Your task to perform on an android device: open app "Upside-Cash back on gas & food" (install if not already installed) Image 0: 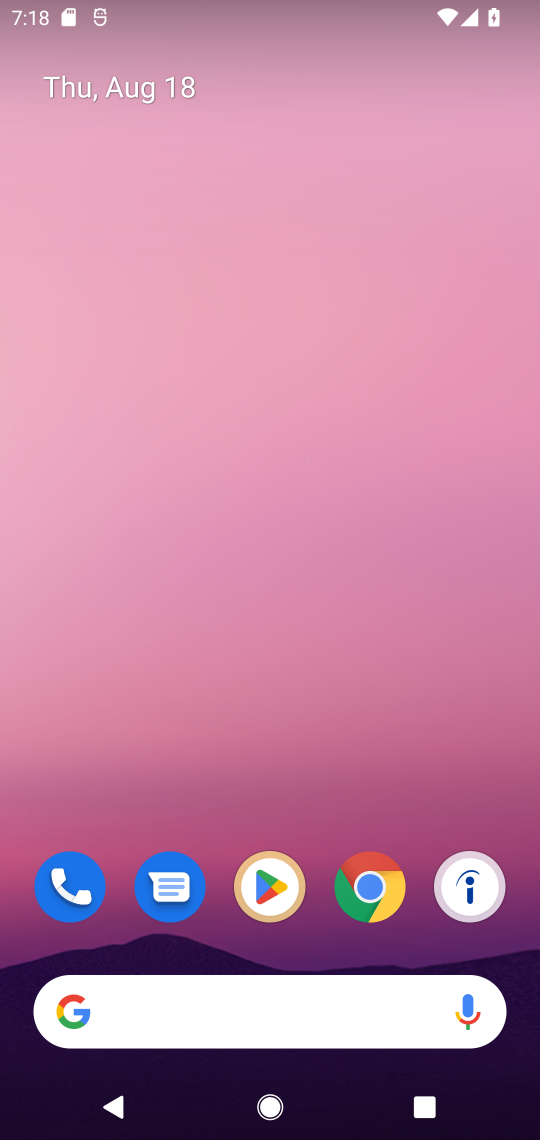
Step 0: click (275, 872)
Your task to perform on an android device: open app "Upside-Cash back on gas & food" (install if not already installed) Image 1: 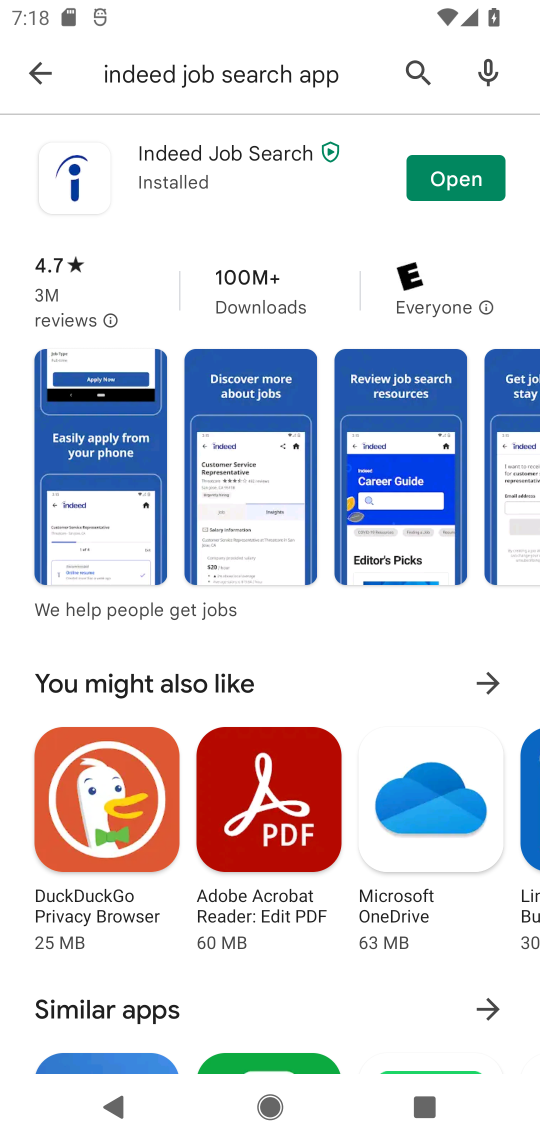
Step 1: click (411, 68)
Your task to perform on an android device: open app "Upside-Cash back on gas & food" (install if not already installed) Image 2: 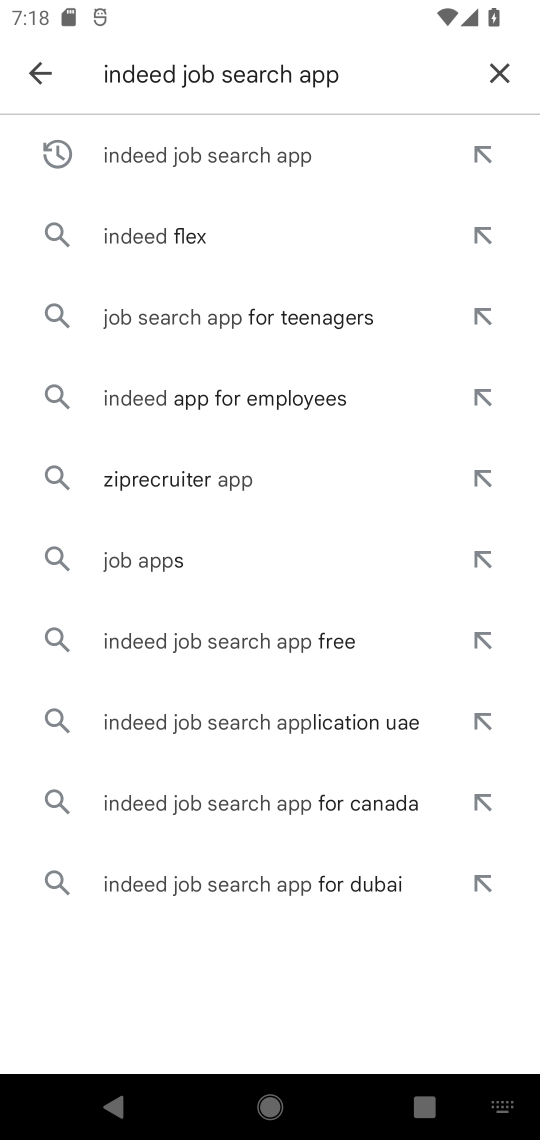
Step 2: click (493, 71)
Your task to perform on an android device: open app "Upside-Cash back on gas & food" (install if not already installed) Image 3: 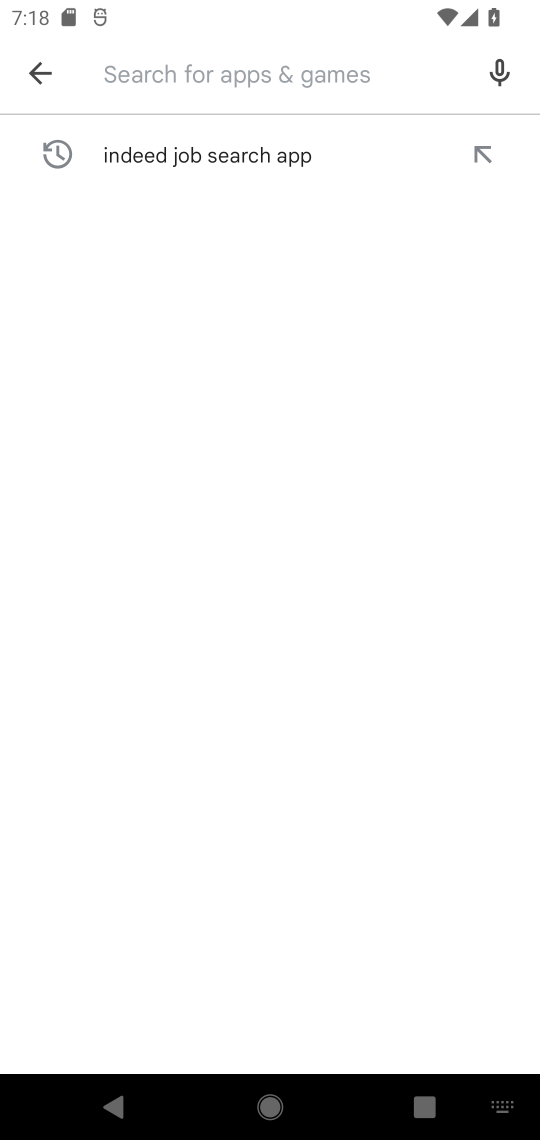
Step 3: type "Upside-Cash back on gas & food"
Your task to perform on an android device: open app "Upside-Cash back on gas & food" (install if not already installed) Image 4: 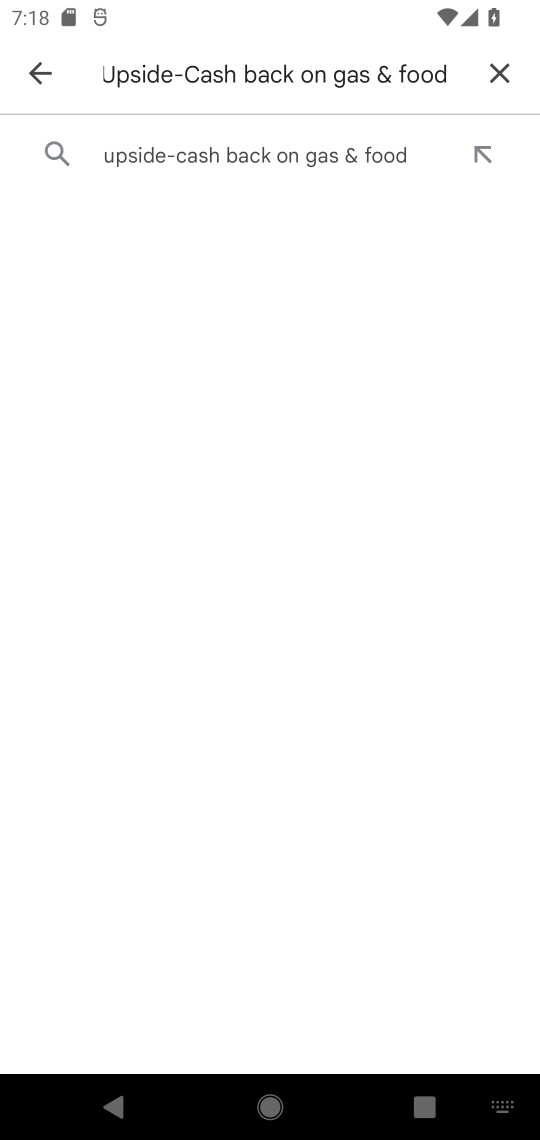
Step 4: click (139, 155)
Your task to perform on an android device: open app "Upside-Cash back on gas & food" (install if not already installed) Image 5: 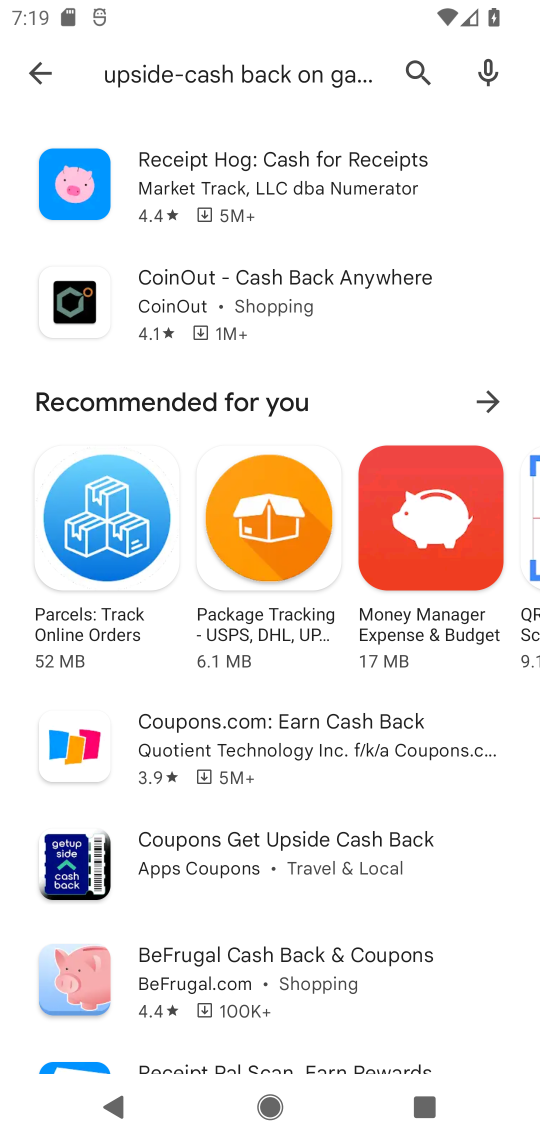
Step 5: task complete